Your task to perform on an android device: Open Chrome and go to settings Image 0: 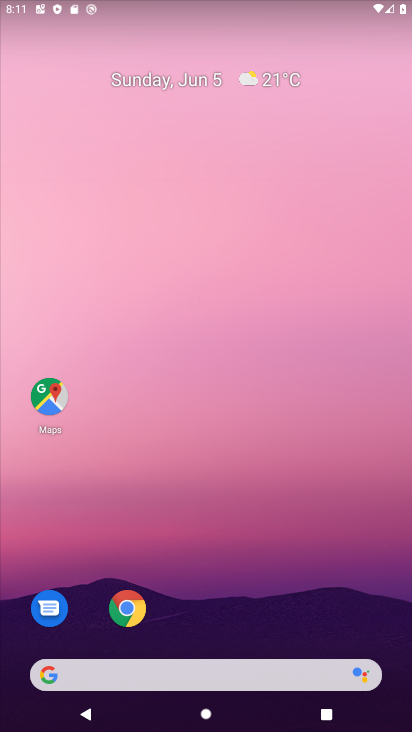
Step 0: drag from (299, 594) to (326, 258)
Your task to perform on an android device: Open Chrome and go to settings Image 1: 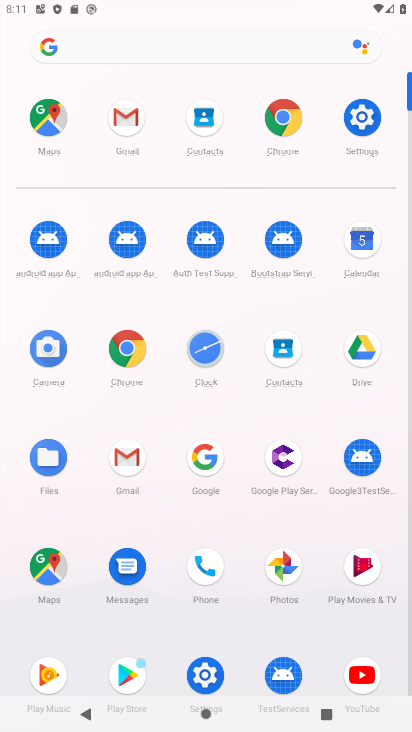
Step 1: click (131, 358)
Your task to perform on an android device: Open Chrome and go to settings Image 2: 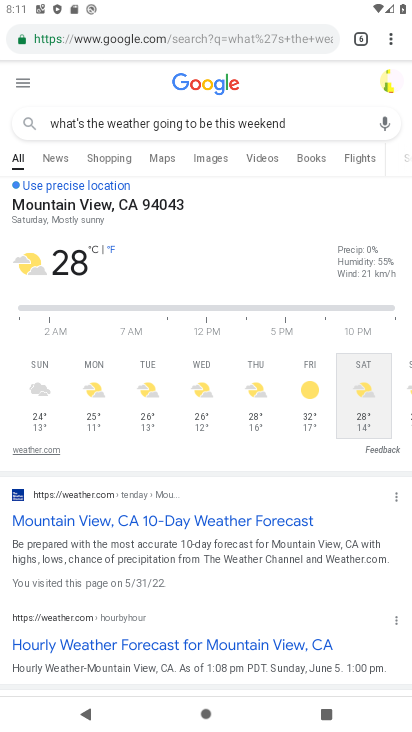
Step 2: task complete